Your task to perform on an android device: toggle pop-ups in chrome Image 0: 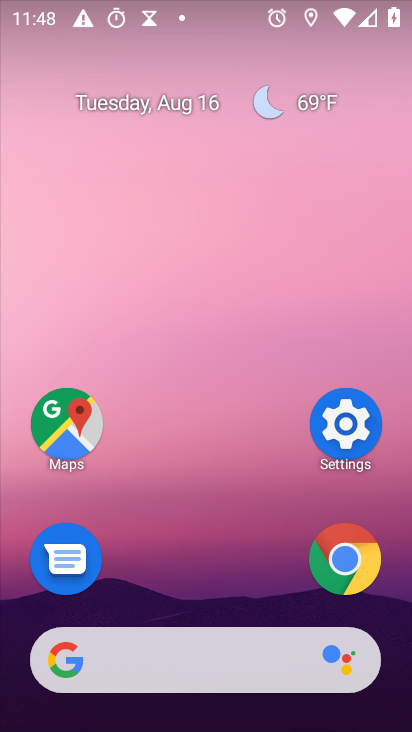
Step 0: click (352, 548)
Your task to perform on an android device: toggle pop-ups in chrome Image 1: 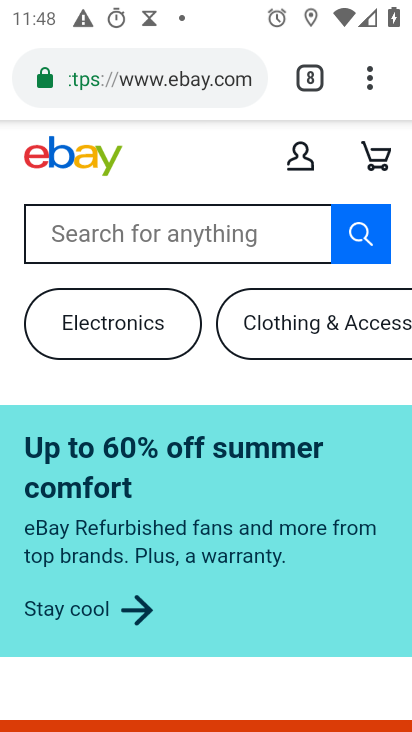
Step 1: drag from (372, 78) to (220, 621)
Your task to perform on an android device: toggle pop-ups in chrome Image 2: 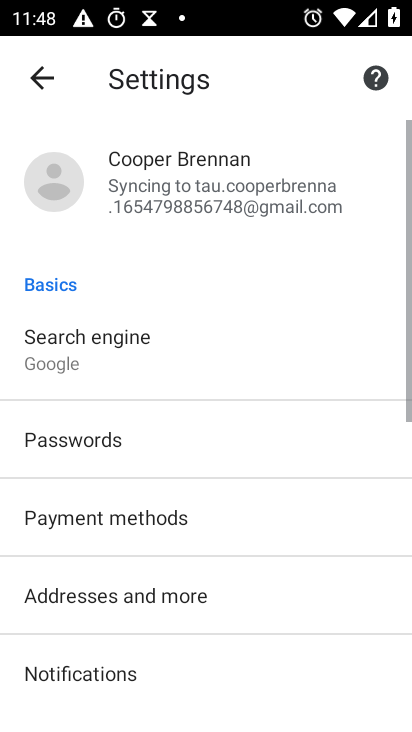
Step 2: drag from (196, 661) to (322, 165)
Your task to perform on an android device: toggle pop-ups in chrome Image 3: 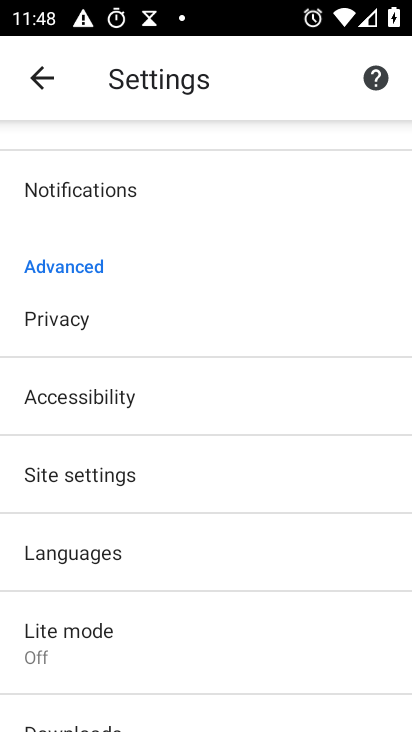
Step 3: click (118, 476)
Your task to perform on an android device: toggle pop-ups in chrome Image 4: 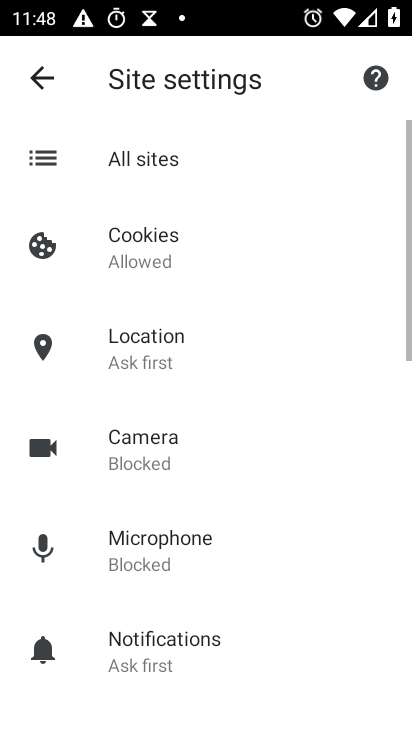
Step 4: drag from (247, 611) to (330, 177)
Your task to perform on an android device: toggle pop-ups in chrome Image 5: 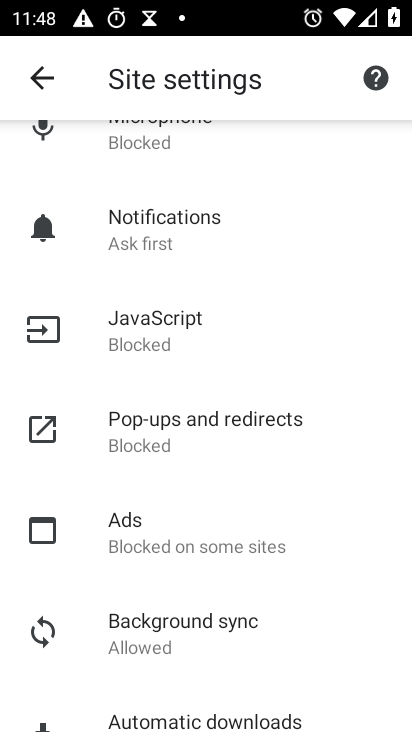
Step 5: click (197, 424)
Your task to perform on an android device: toggle pop-ups in chrome Image 6: 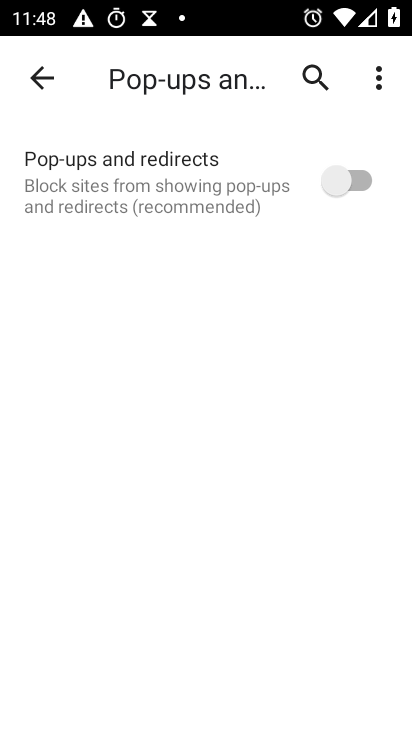
Step 6: click (361, 177)
Your task to perform on an android device: toggle pop-ups in chrome Image 7: 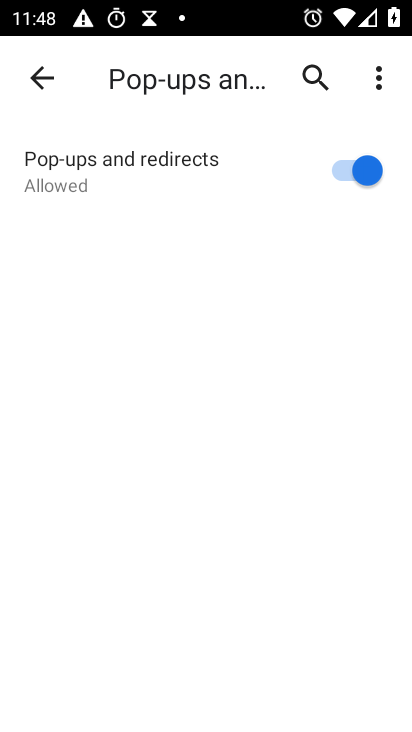
Step 7: task complete